Your task to perform on an android device: Open notification settings Image 0: 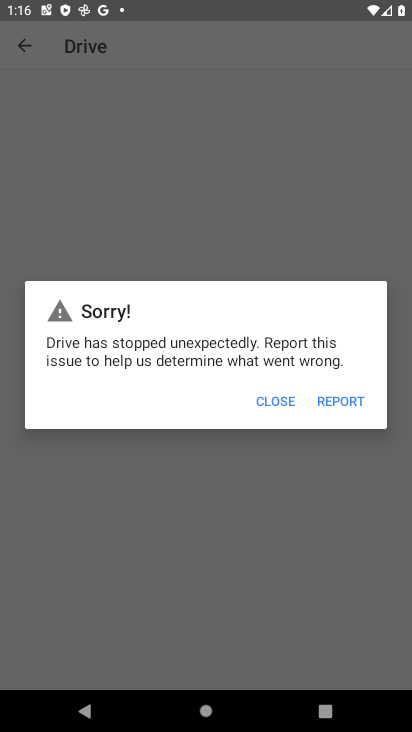
Step 0: press home button
Your task to perform on an android device: Open notification settings Image 1: 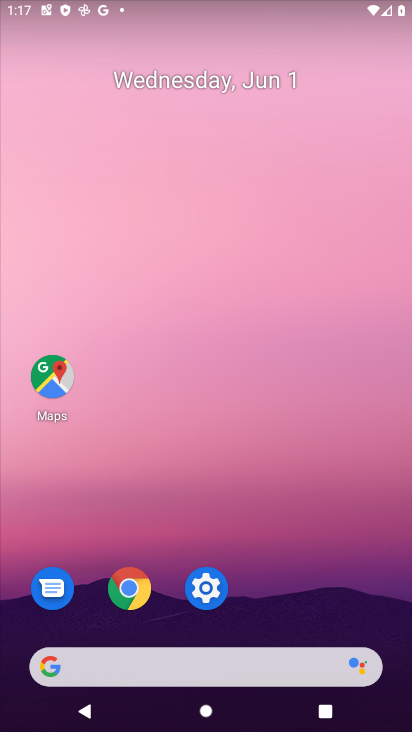
Step 1: click (191, 598)
Your task to perform on an android device: Open notification settings Image 2: 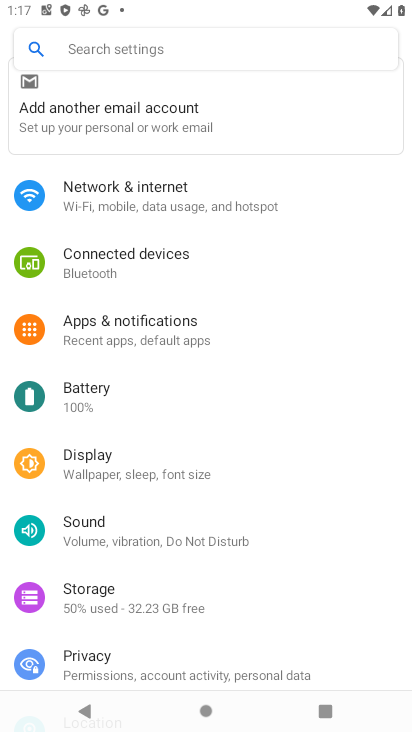
Step 2: task complete